Your task to perform on an android device: allow cookies in the chrome app Image 0: 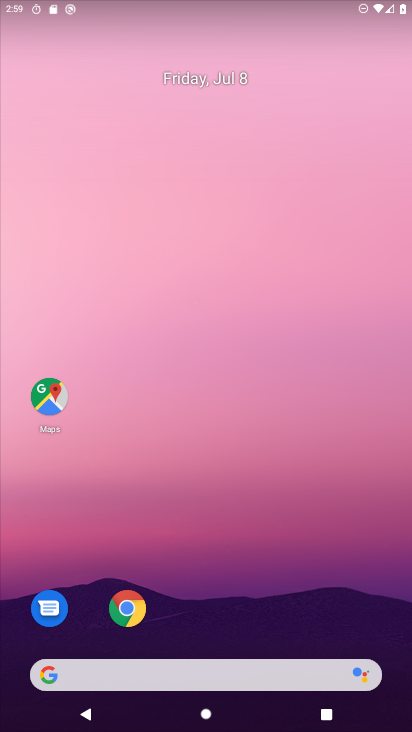
Step 0: click (125, 605)
Your task to perform on an android device: allow cookies in the chrome app Image 1: 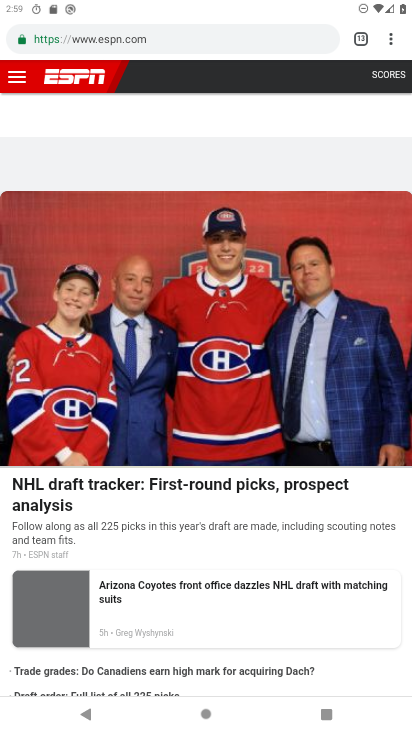
Step 1: click (392, 40)
Your task to perform on an android device: allow cookies in the chrome app Image 2: 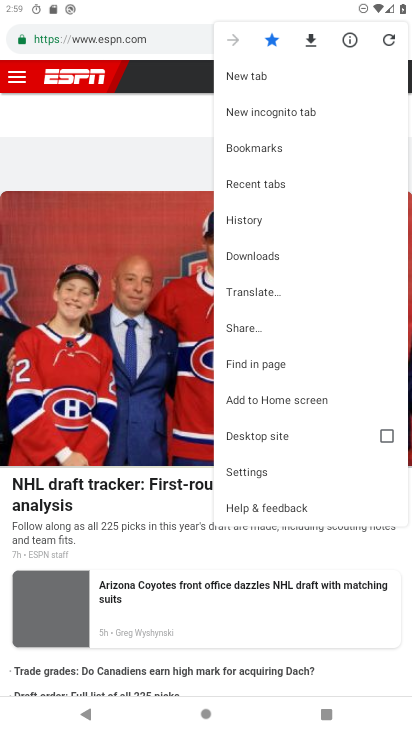
Step 2: click (250, 472)
Your task to perform on an android device: allow cookies in the chrome app Image 3: 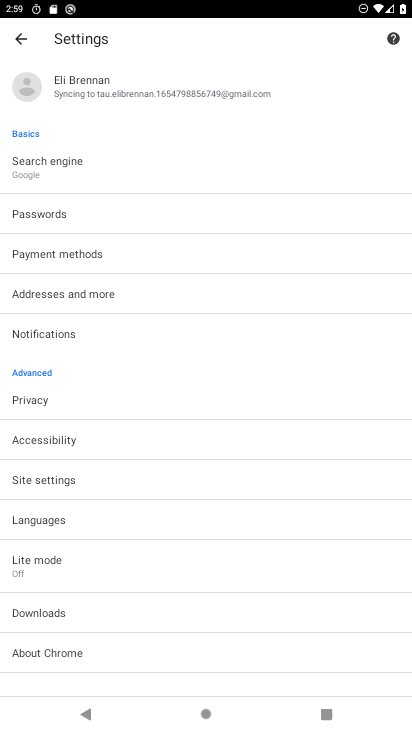
Step 3: click (46, 481)
Your task to perform on an android device: allow cookies in the chrome app Image 4: 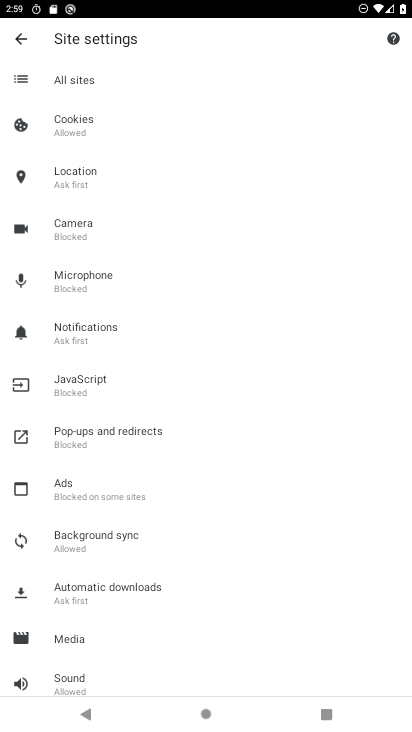
Step 4: click (77, 120)
Your task to perform on an android device: allow cookies in the chrome app Image 5: 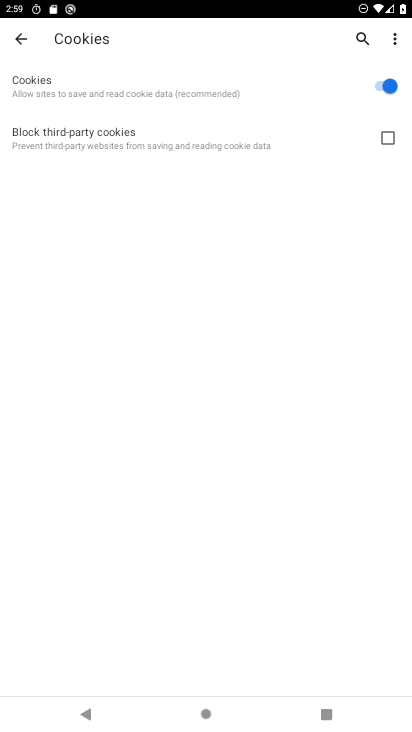
Step 5: task complete